Your task to perform on an android device: Open privacy settings Image 0: 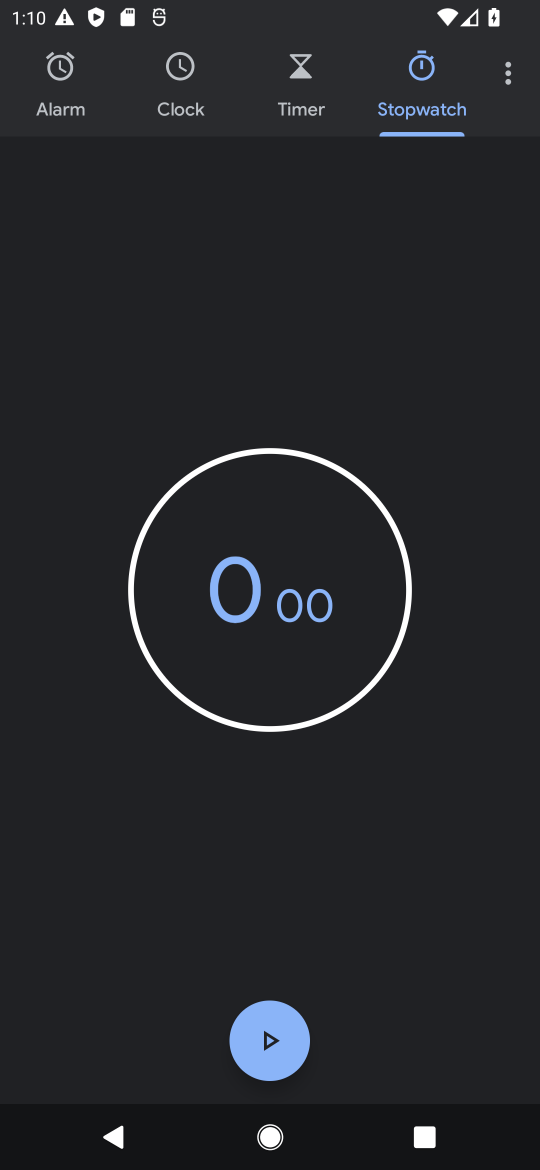
Step 0: press back button
Your task to perform on an android device: Open privacy settings Image 1: 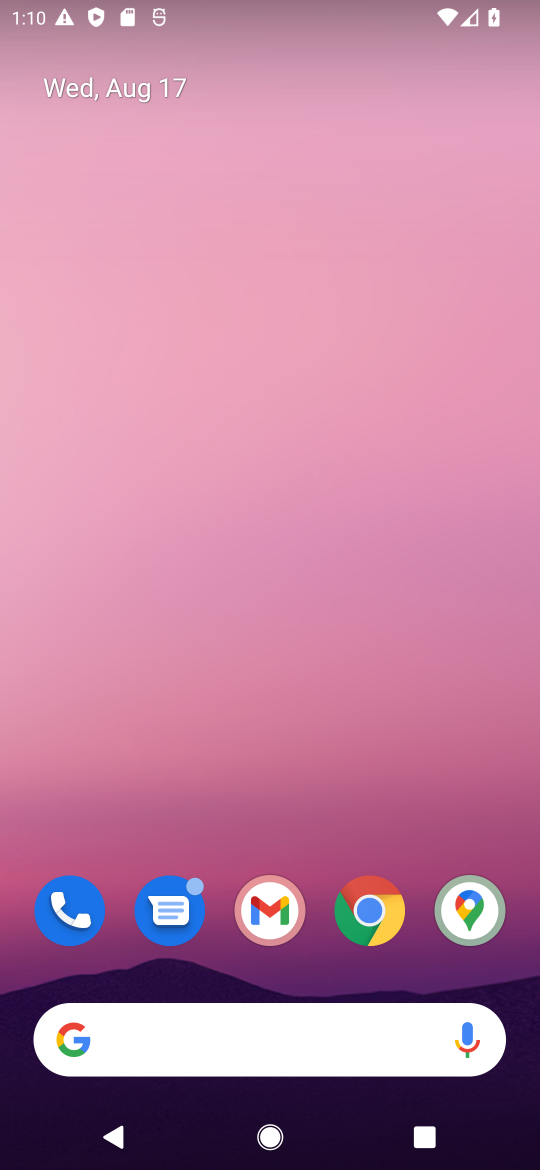
Step 1: drag from (235, 645) to (333, 101)
Your task to perform on an android device: Open privacy settings Image 2: 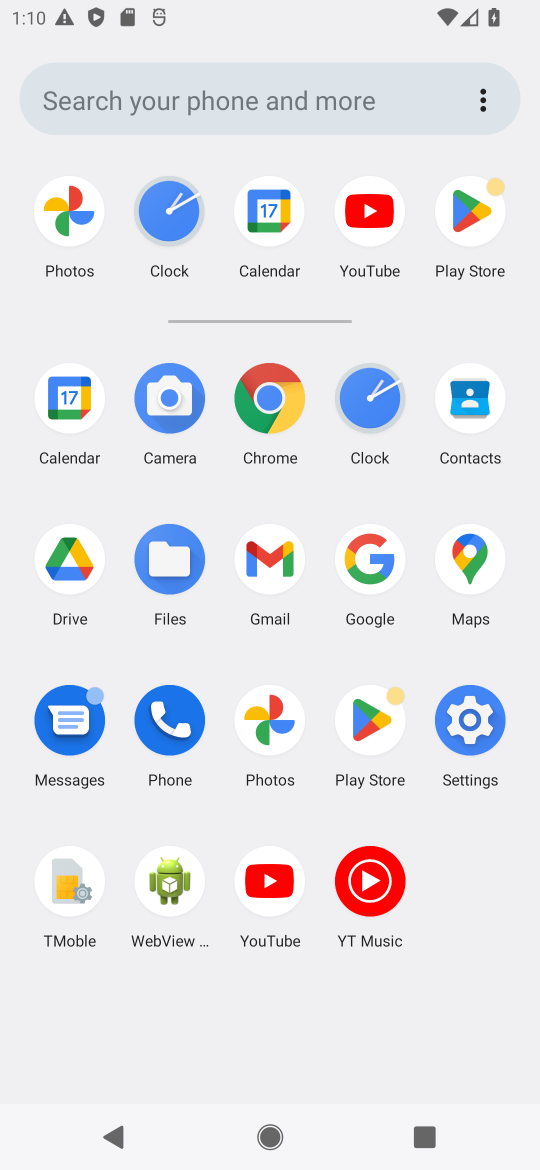
Step 2: click (475, 724)
Your task to perform on an android device: Open privacy settings Image 3: 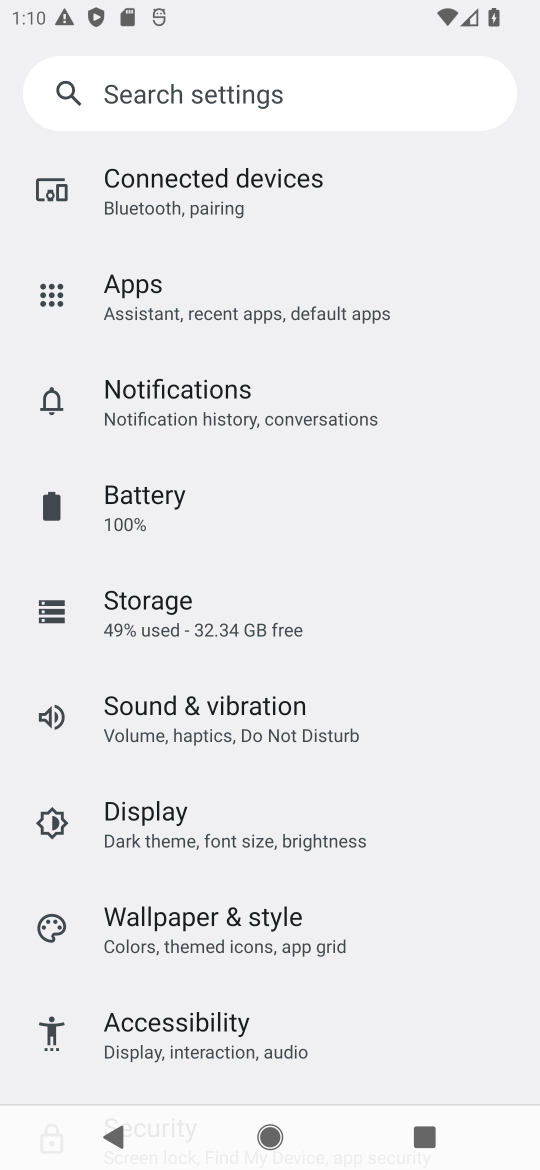
Step 3: drag from (233, 1013) to (373, 229)
Your task to perform on an android device: Open privacy settings Image 4: 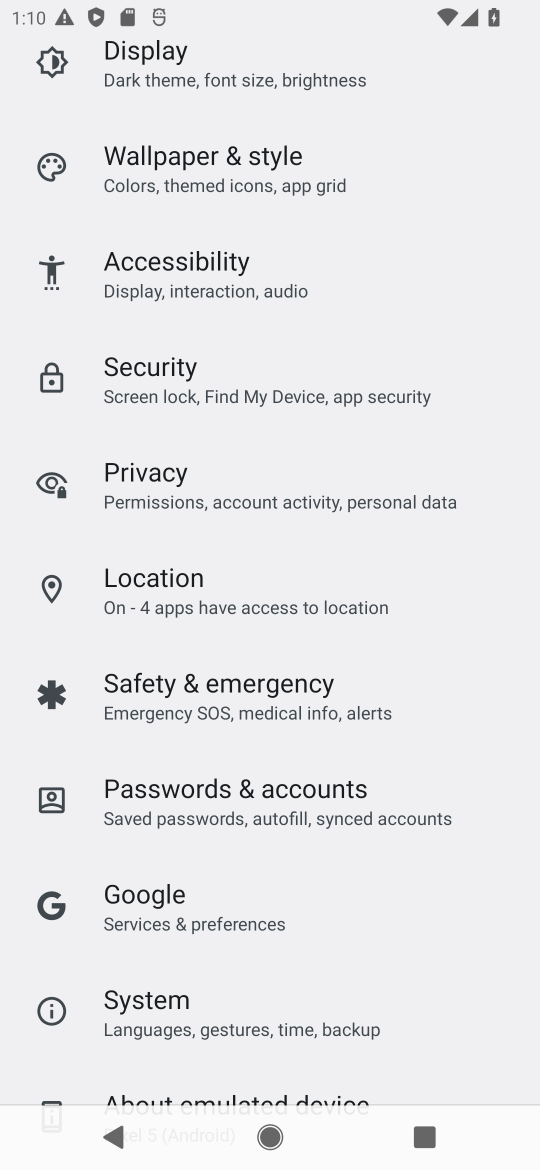
Step 4: drag from (321, 188) to (240, 1169)
Your task to perform on an android device: Open privacy settings Image 5: 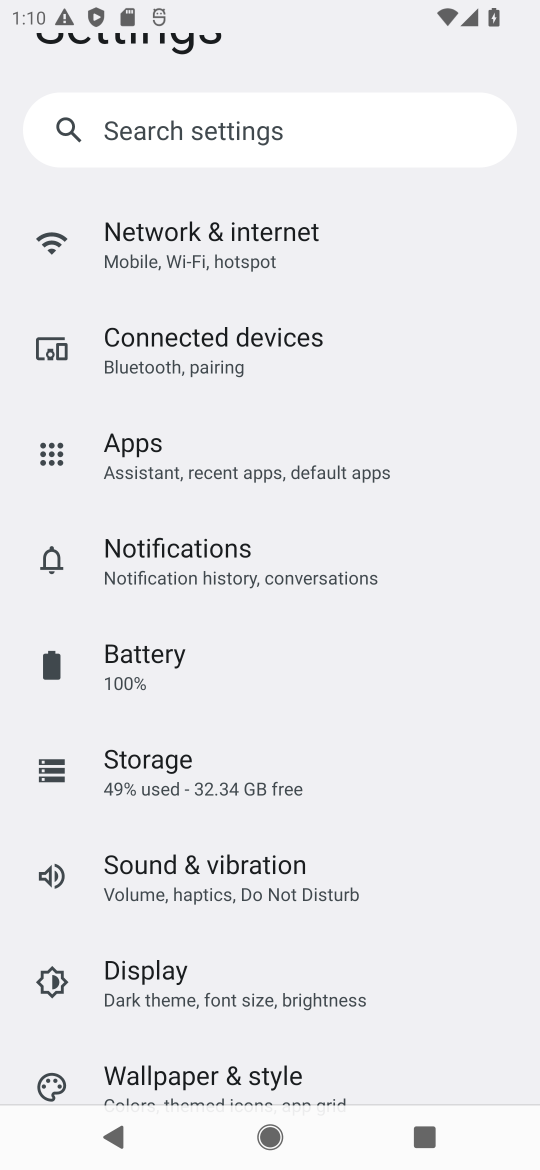
Step 5: drag from (280, 1020) to (361, 132)
Your task to perform on an android device: Open privacy settings Image 6: 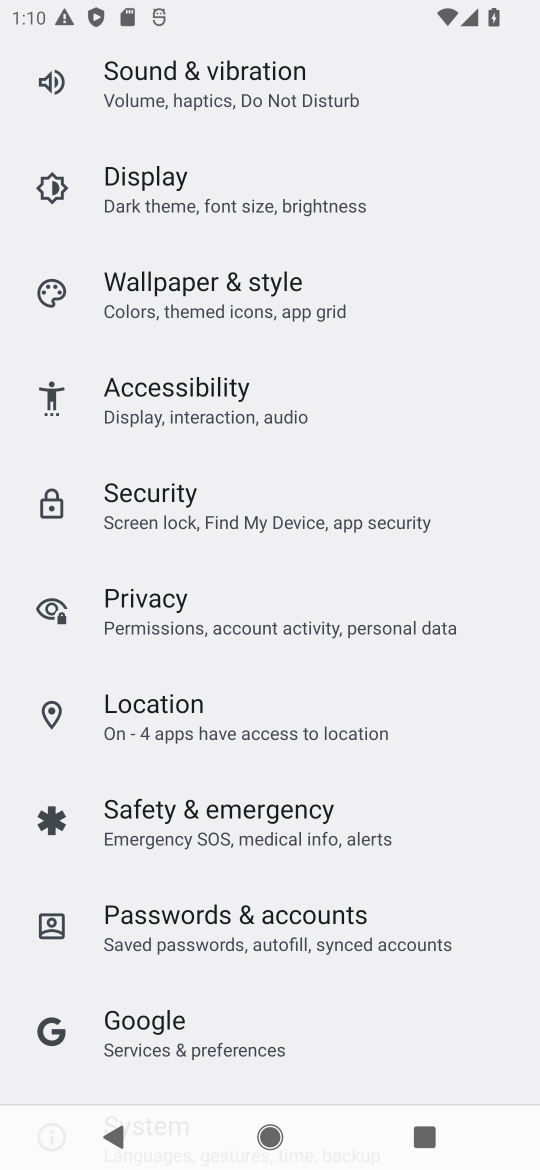
Step 6: drag from (277, 928) to (383, 147)
Your task to perform on an android device: Open privacy settings Image 7: 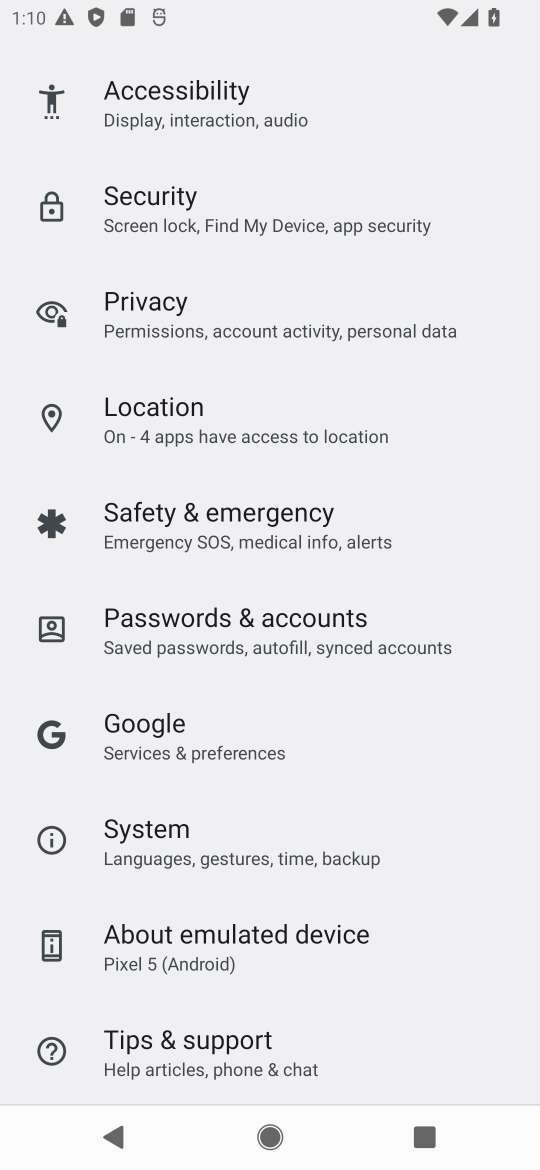
Step 7: drag from (372, 385) to (376, 1042)
Your task to perform on an android device: Open privacy settings Image 8: 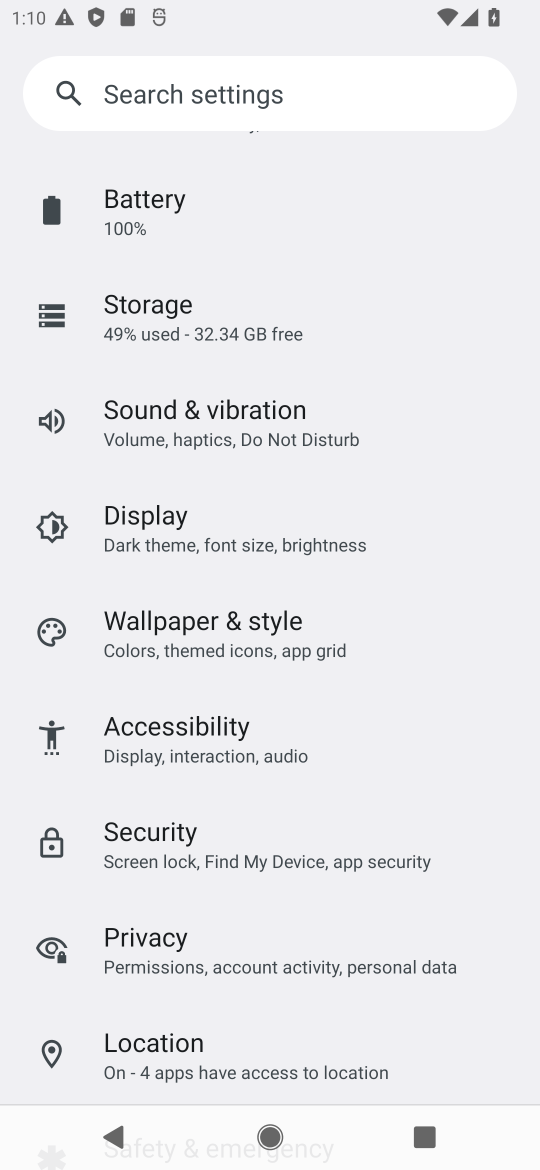
Step 8: drag from (373, 425) to (290, 1041)
Your task to perform on an android device: Open privacy settings Image 9: 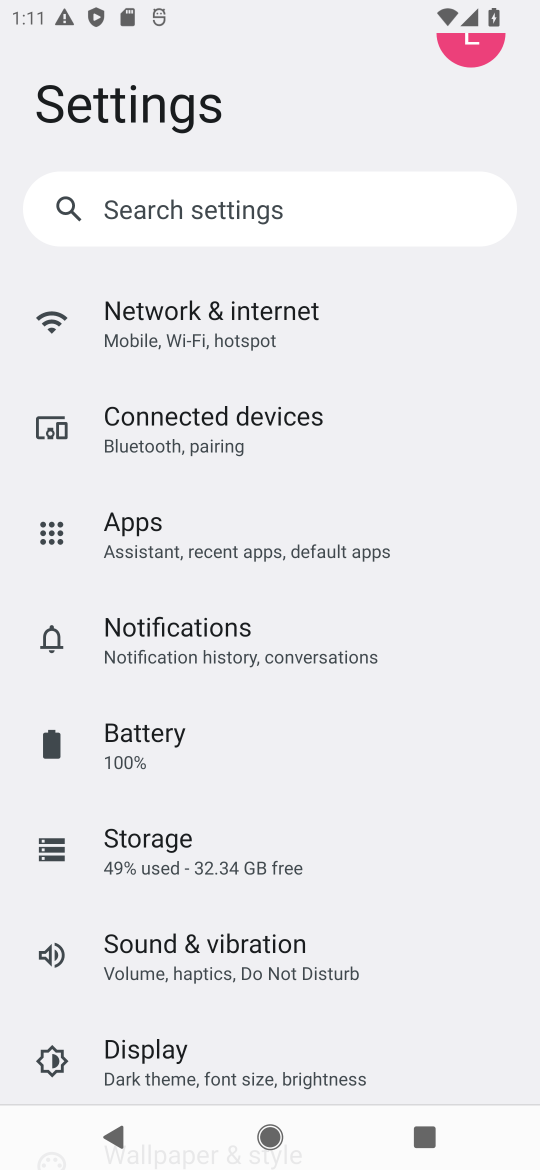
Step 9: drag from (328, 608) to (290, 1111)
Your task to perform on an android device: Open privacy settings Image 10: 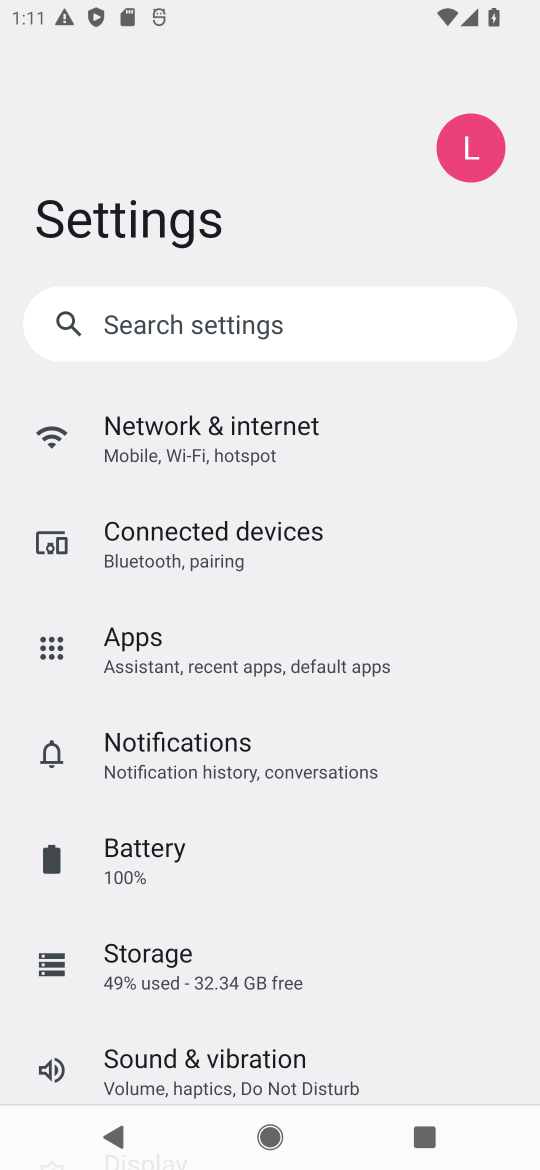
Step 10: drag from (320, 1039) to (429, 204)
Your task to perform on an android device: Open privacy settings Image 11: 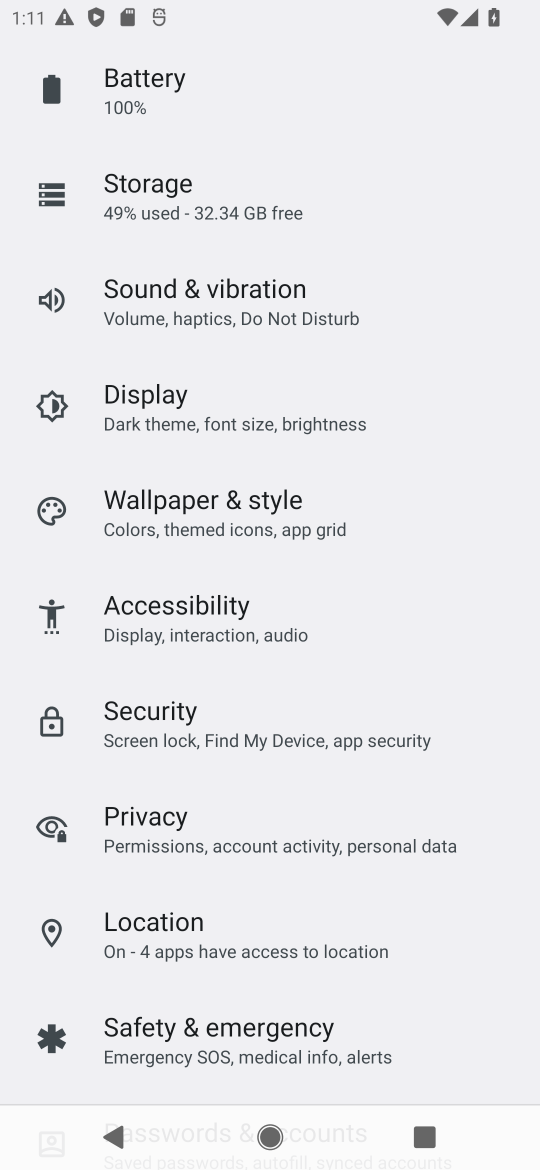
Step 11: click (143, 802)
Your task to perform on an android device: Open privacy settings Image 12: 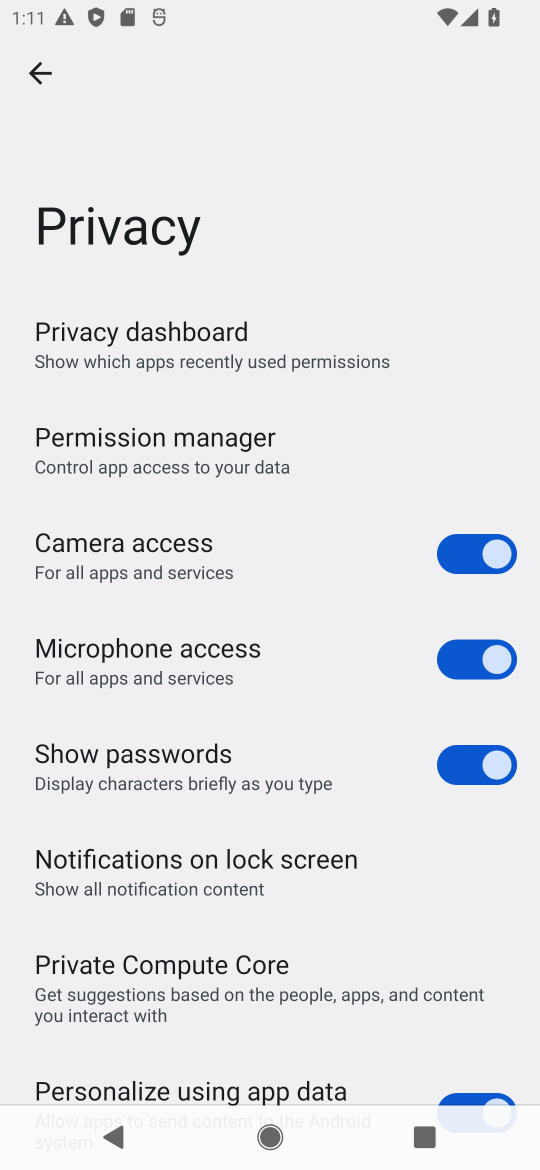
Step 12: task complete